Your task to perform on an android device: check the backup settings in the google photos Image 0: 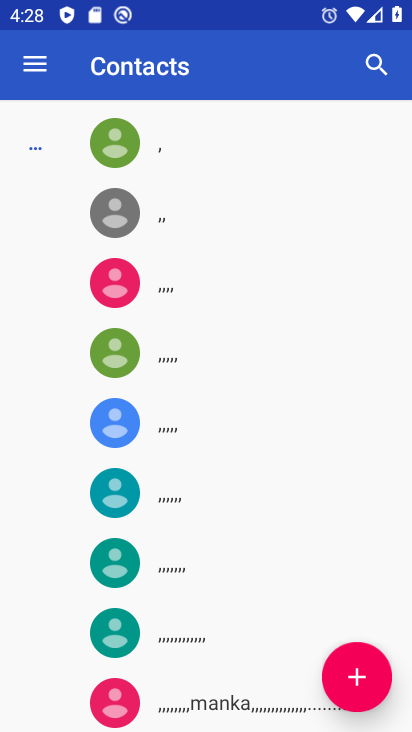
Step 0: press home button
Your task to perform on an android device: check the backup settings in the google photos Image 1: 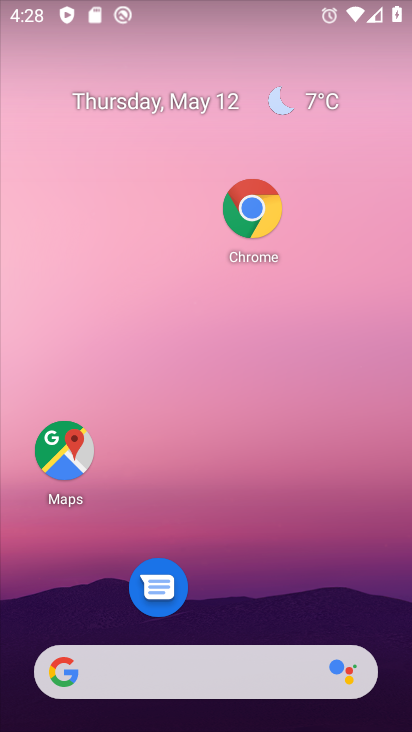
Step 1: drag from (239, 605) to (207, 85)
Your task to perform on an android device: check the backup settings in the google photos Image 2: 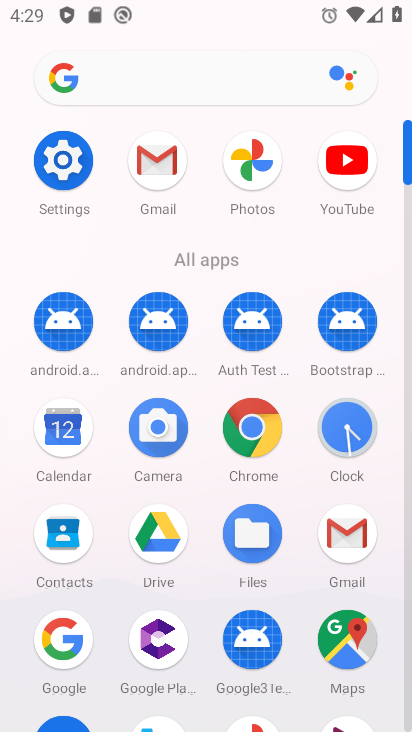
Step 2: drag from (204, 637) to (223, 304)
Your task to perform on an android device: check the backup settings in the google photos Image 3: 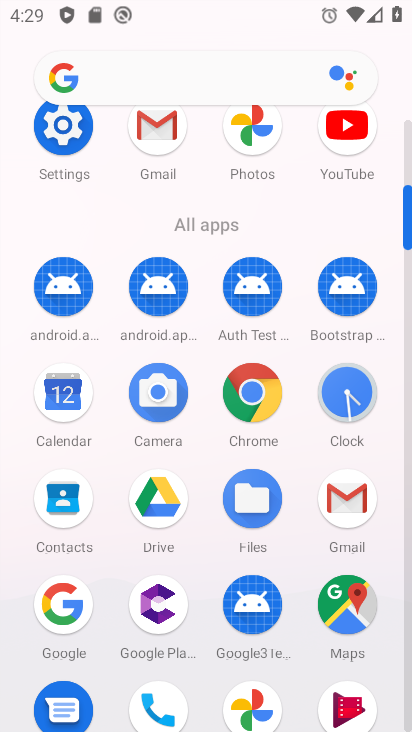
Step 3: drag from (191, 638) to (184, 289)
Your task to perform on an android device: check the backup settings in the google photos Image 4: 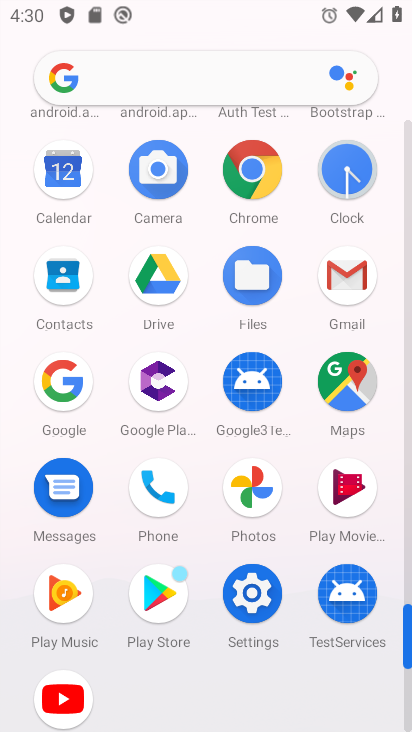
Step 4: click (260, 494)
Your task to perform on an android device: check the backup settings in the google photos Image 5: 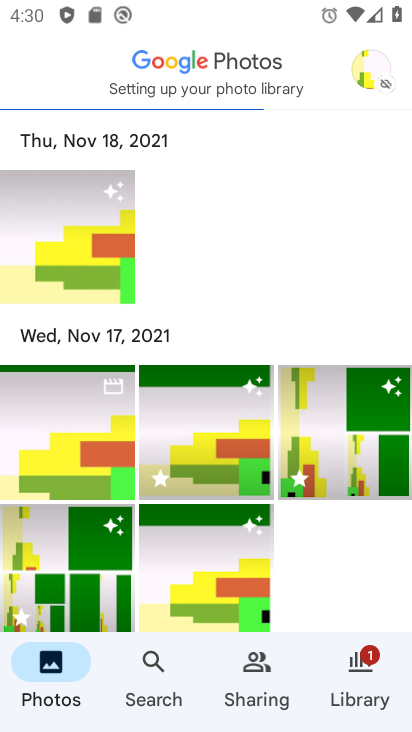
Step 5: click (373, 72)
Your task to perform on an android device: check the backup settings in the google photos Image 6: 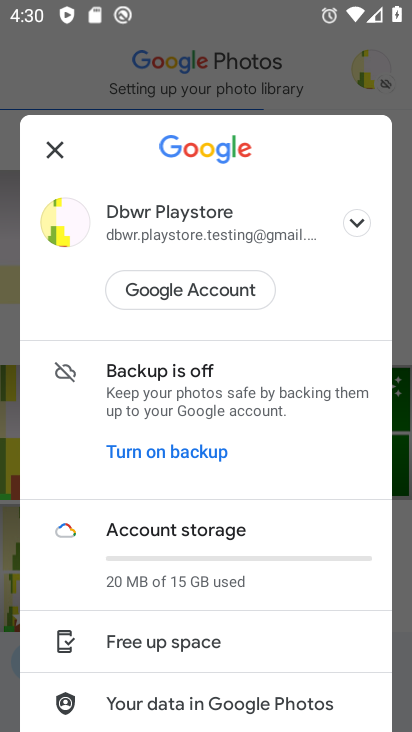
Step 6: click (133, 400)
Your task to perform on an android device: check the backup settings in the google photos Image 7: 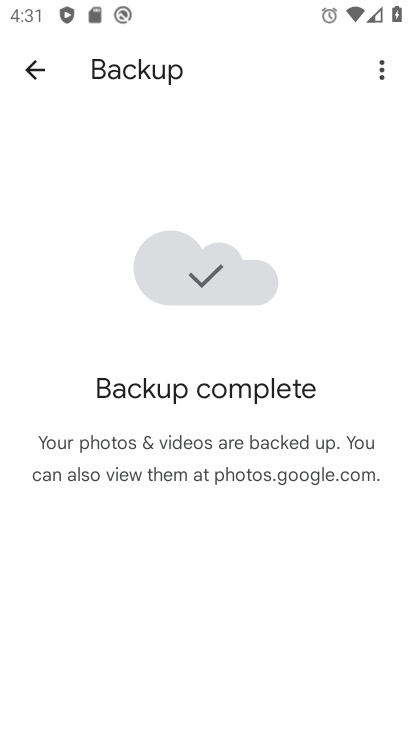
Step 7: click (37, 85)
Your task to perform on an android device: check the backup settings in the google photos Image 8: 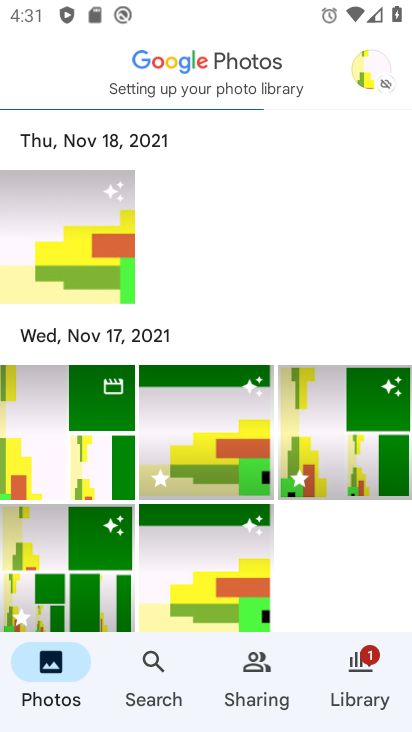
Step 8: click (376, 78)
Your task to perform on an android device: check the backup settings in the google photos Image 9: 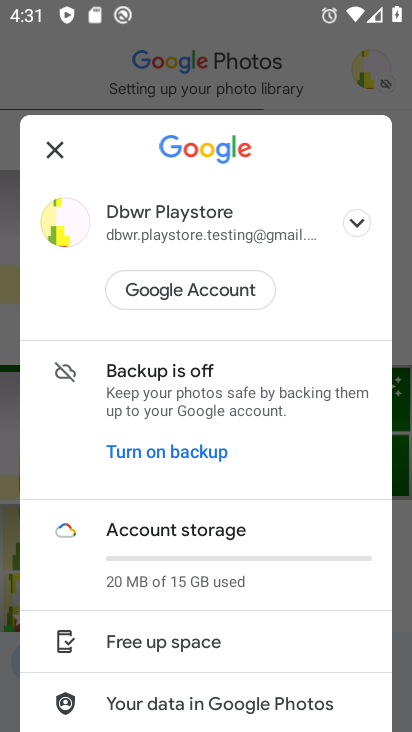
Step 9: click (172, 227)
Your task to perform on an android device: check the backup settings in the google photos Image 10: 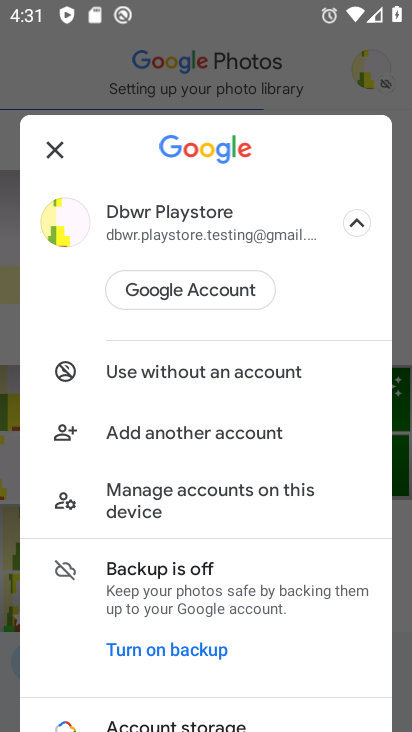
Step 10: task complete